Your task to perform on an android device: toggle sleep mode Image 0: 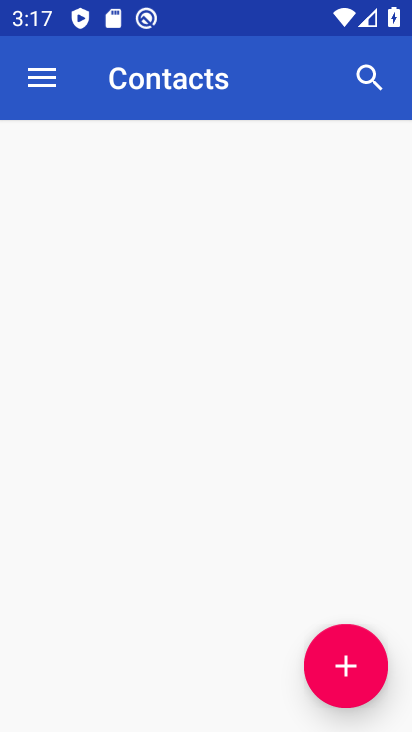
Step 0: drag from (177, 722) to (181, 349)
Your task to perform on an android device: toggle sleep mode Image 1: 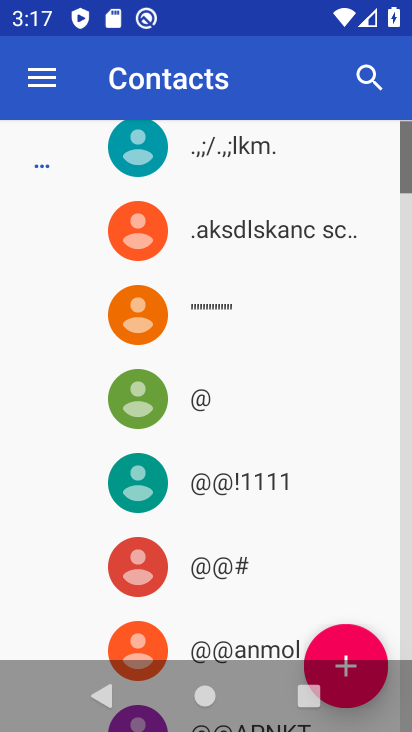
Step 1: press home button
Your task to perform on an android device: toggle sleep mode Image 2: 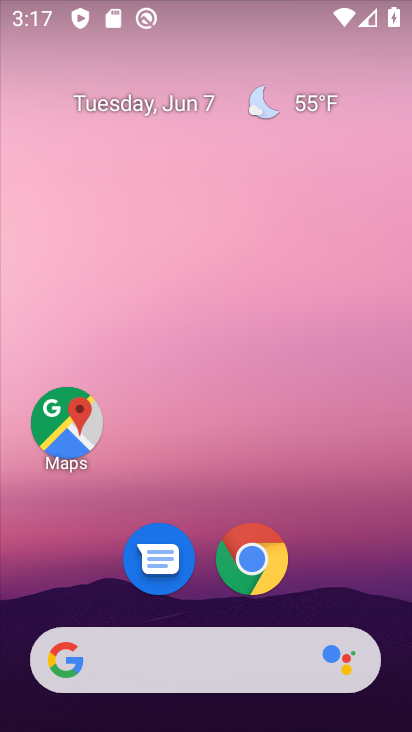
Step 2: drag from (233, 711) to (233, 55)
Your task to perform on an android device: toggle sleep mode Image 3: 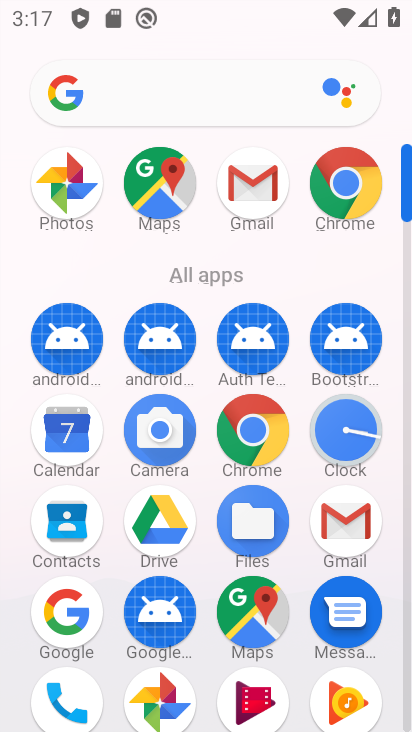
Step 3: drag from (214, 618) to (215, 317)
Your task to perform on an android device: toggle sleep mode Image 4: 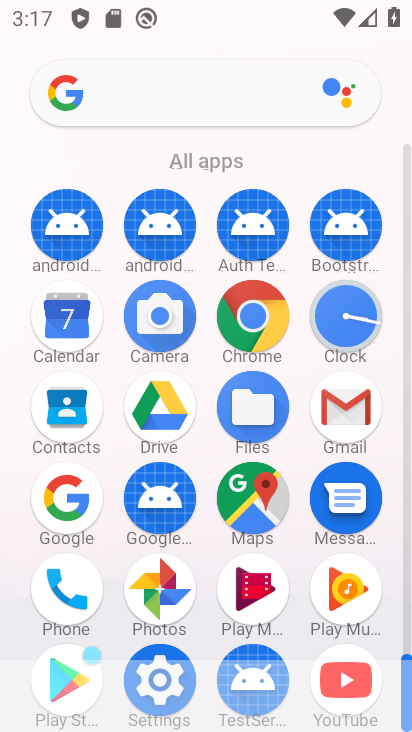
Step 4: drag from (198, 628) to (199, 264)
Your task to perform on an android device: toggle sleep mode Image 5: 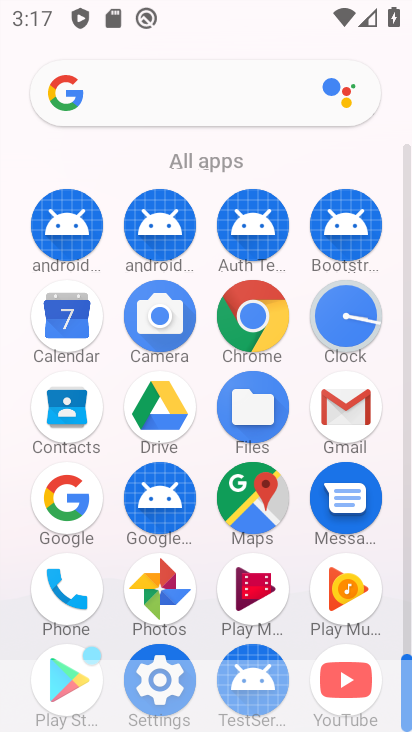
Step 5: click (163, 651)
Your task to perform on an android device: toggle sleep mode Image 6: 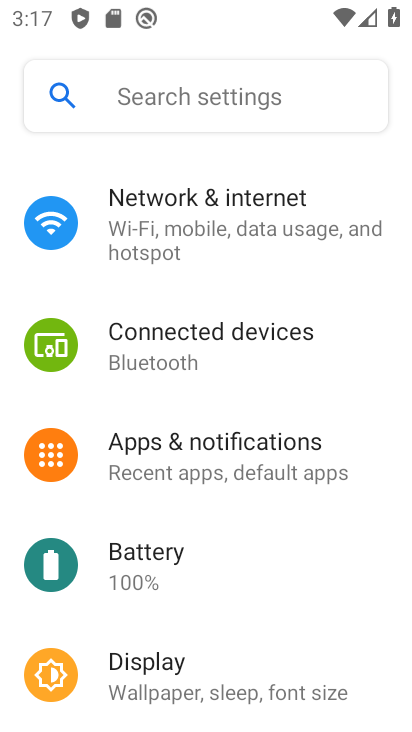
Step 6: click (164, 658)
Your task to perform on an android device: toggle sleep mode Image 7: 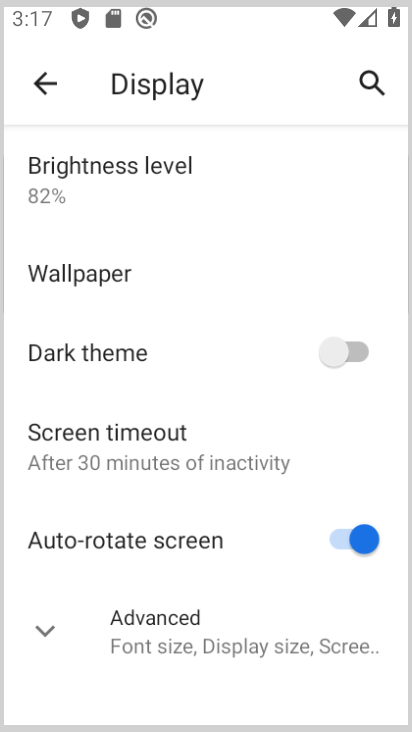
Step 7: drag from (234, 493) to (234, 317)
Your task to perform on an android device: toggle sleep mode Image 8: 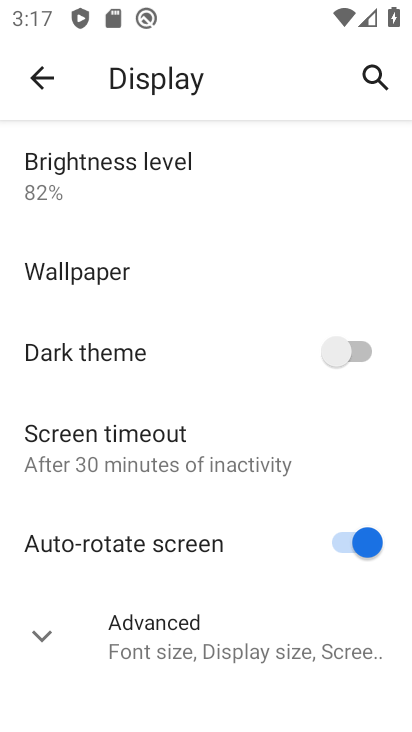
Step 8: click (30, 69)
Your task to perform on an android device: toggle sleep mode Image 9: 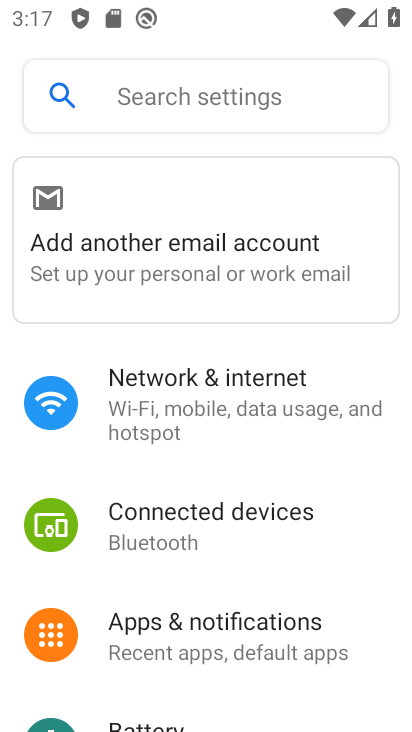
Step 9: task complete